Your task to perform on an android device: Go to internet settings Image 0: 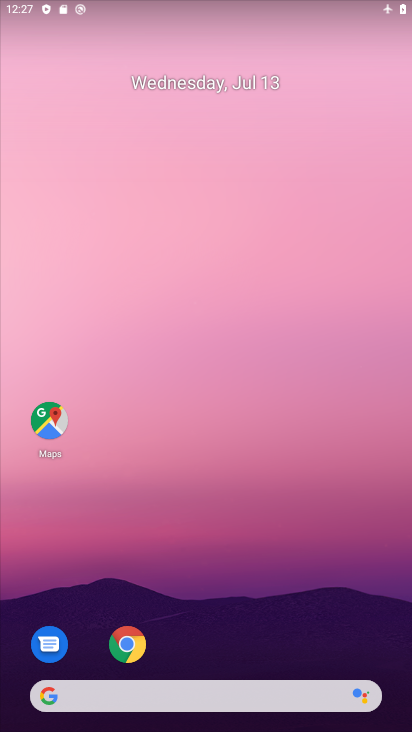
Step 0: drag from (311, 599) to (256, 126)
Your task to perform on an android device: Go to internet settings Image 1: 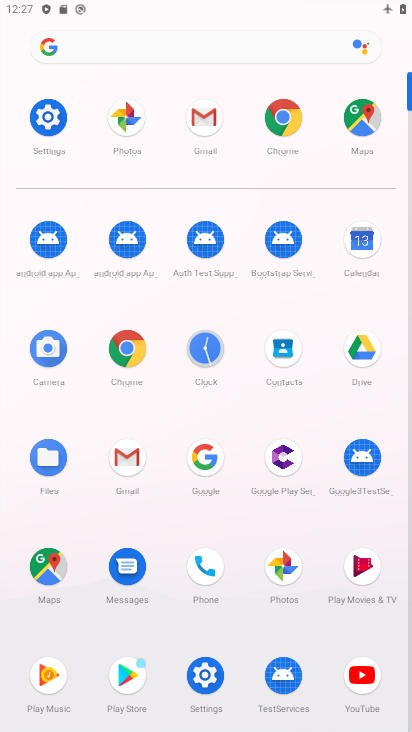
Step 1: click (58, 109)
Your task to perform on an android device: Go to internet settings Image 2: 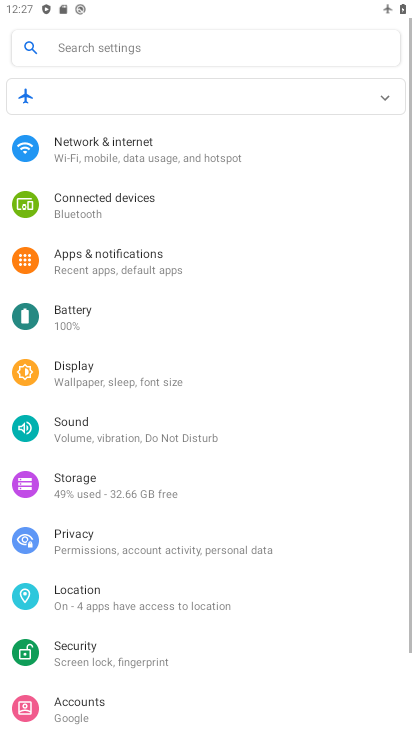
Step 2: click (126, 150)
Your task to perform on an android device: Go to internet settings Image 3: 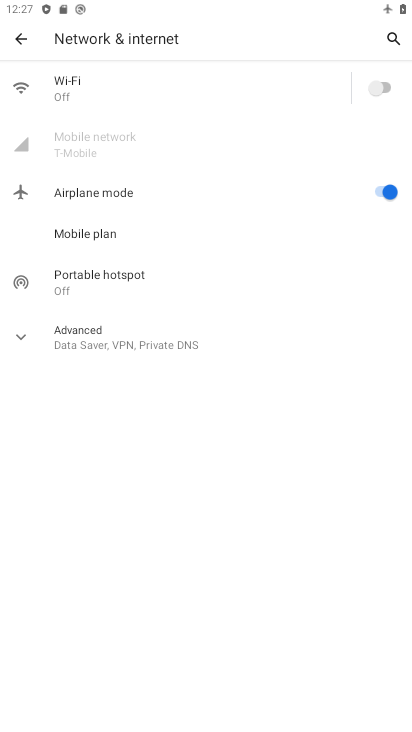
Step 3: click (93, 330)
Your task to perform on an android device: Go to internet settings Image 4: 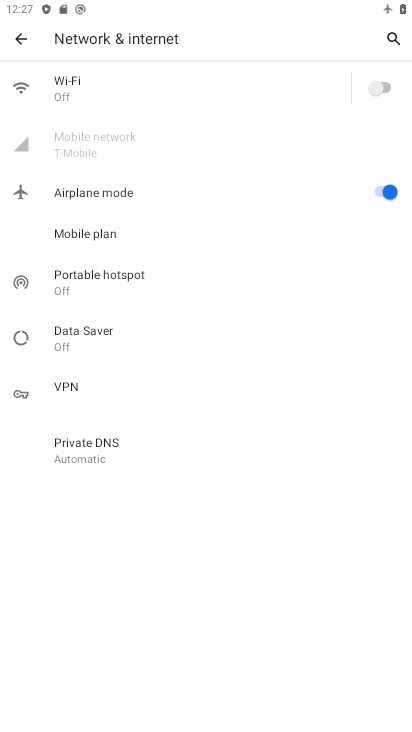
Step 4: task complete